Your task to perform on an android device: Search for Italian restaurants on Maps Image 0: 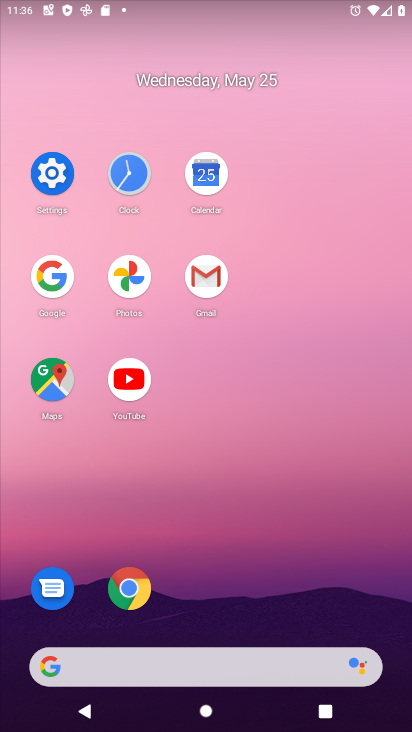
Step 0: click (49, 376)
Your task to perform on an android device: Search for Italian restaurants on Maps Image 1: 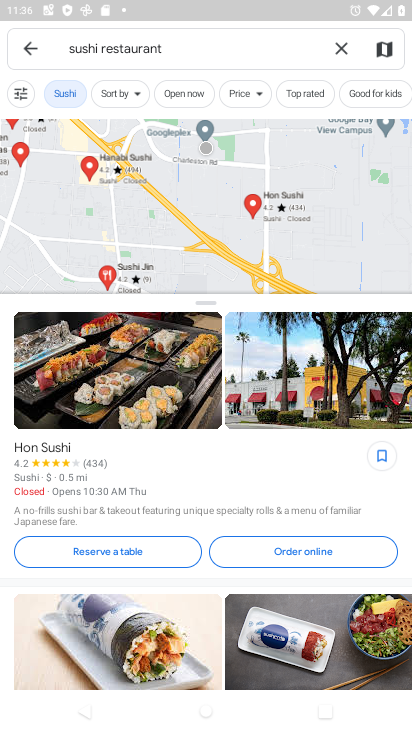
Step 1: click (343, 44)
Your task to perform on an android device: Search for Italian restaurants on Maps Image 2: 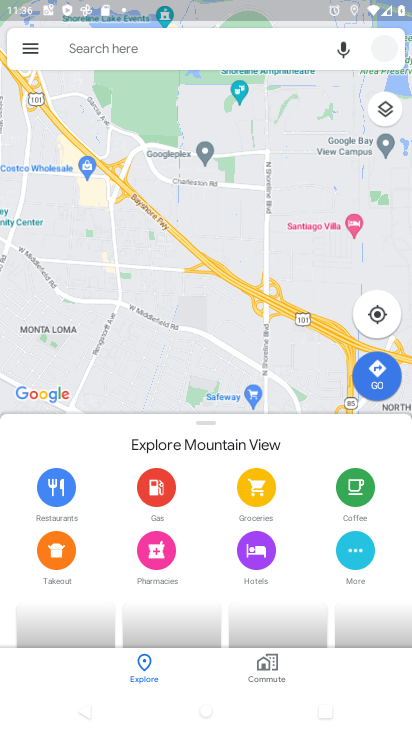
Step 2: click (242, 48)
Your task to perform on an android device: Search for Italian restaurants on Maps Image 3: 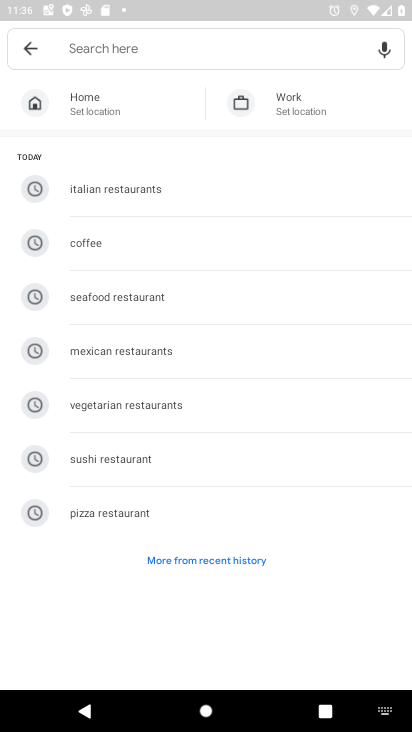
Step 3: click (173, 179)
Your task to perform on an android device: Search for Italian restaurants on Maps Image 4: 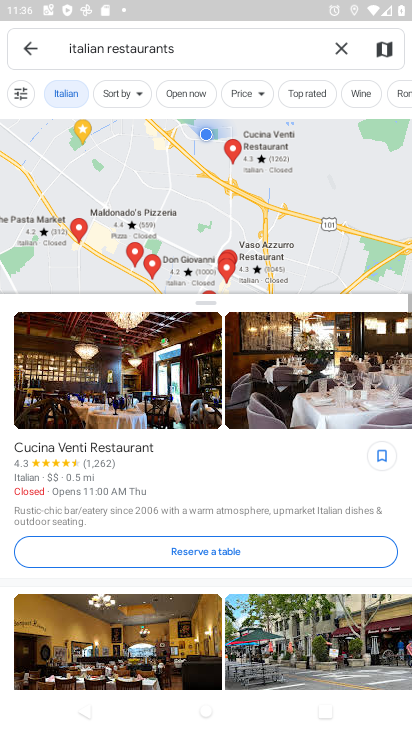
Step 4: task complete